Your task to perform on an android device: turn notification dots off Image 0: 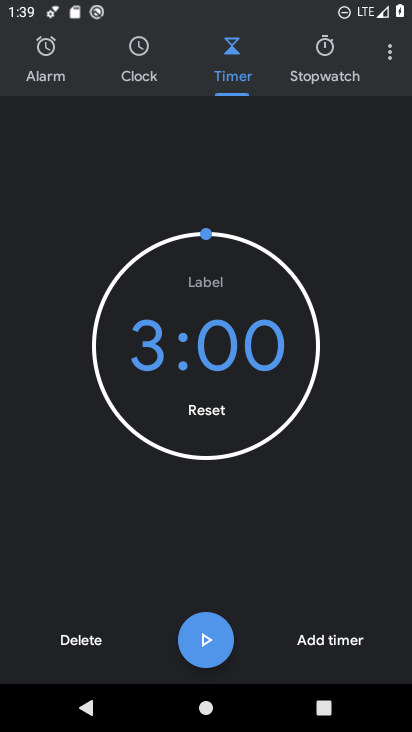
Step 0: press home button
Your task to perform on an android device: turn notification dots off Image 1: 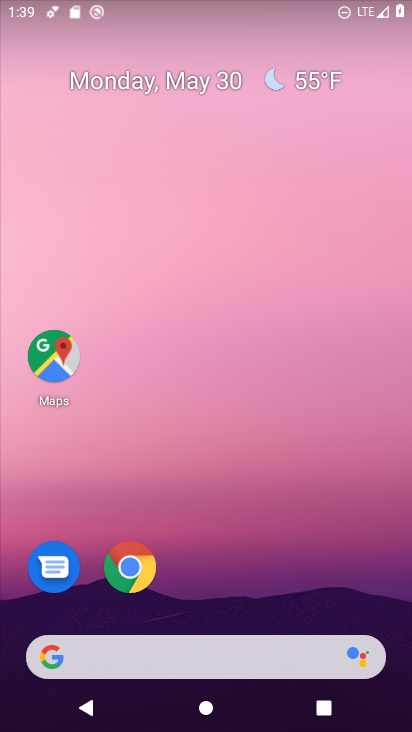
Step 1: drag from (221, 616) to (70, 25)
Your task to perform on an android device: turn notification dots off Image 2: 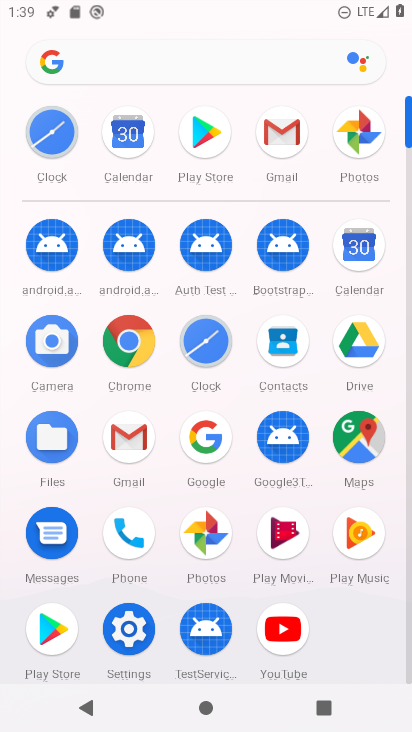
Step 2: click (125, 622)
Your task to perform on an android device: turn notification dots off Image 3: 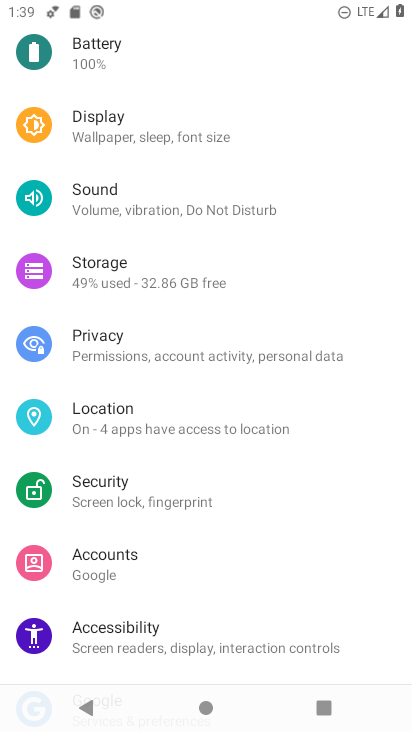
Step 3: drag from (145, 155) to (152, 630)
Your task to perform on an android device: turn notification dots off Image 4: 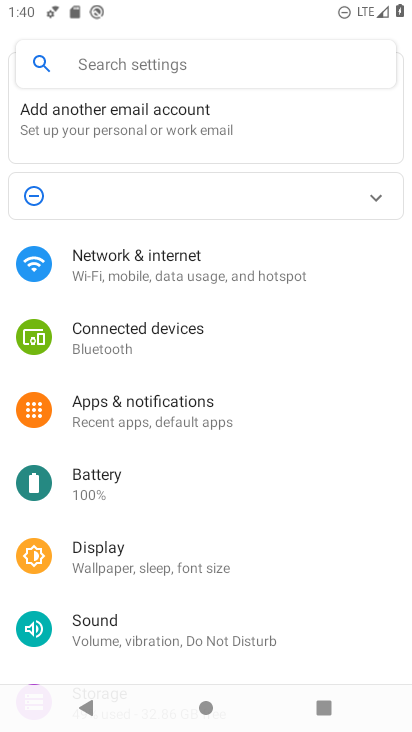
Step 4: click (227, 401)
Your task to perform on an android device: turn notification dots off Image 5: 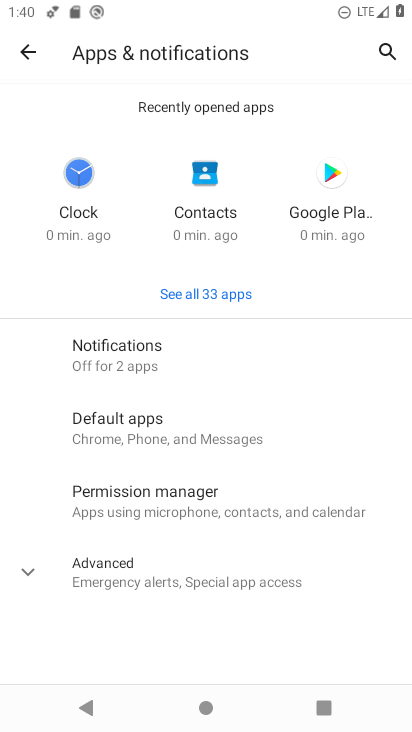
Step 5: click (184, 348)
Your task to perform on an android device: turn notification dots off Image 6: 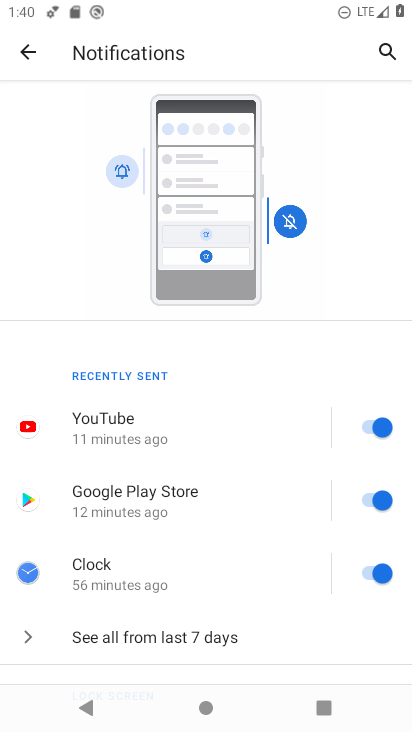
Step 6: drag from (205, 617) to (236, 252)
Your task to perform on an android device: turn notification dots off Image 7: 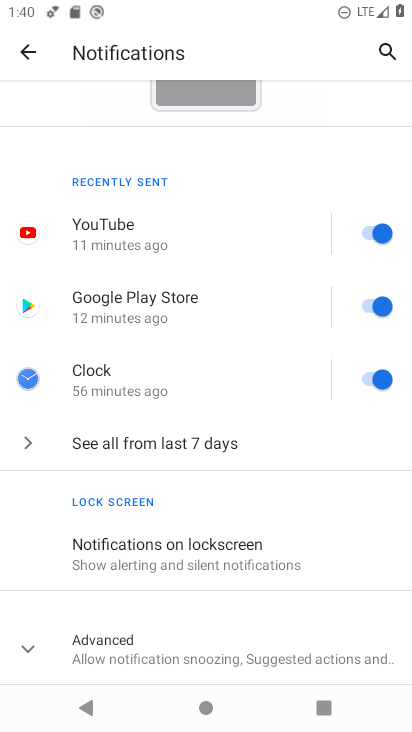
Step 7: click (151, 638)
Your task to perform on an android device: turn notification dots off Image 8: 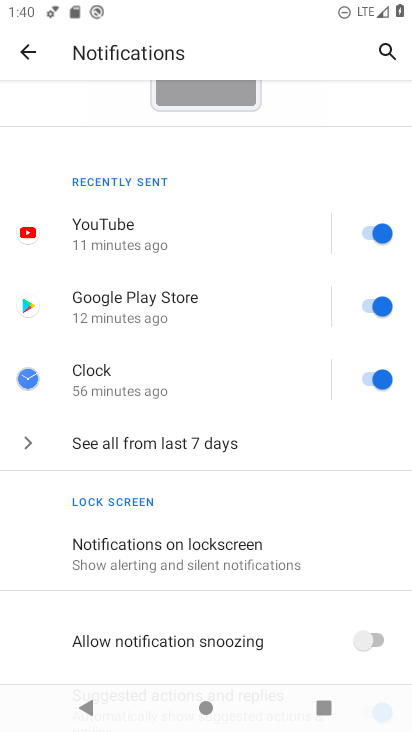
Step 8: drag from (196, 619) to (222, 118)
Your task to perform on an android device: turn notification dots off Image 9: 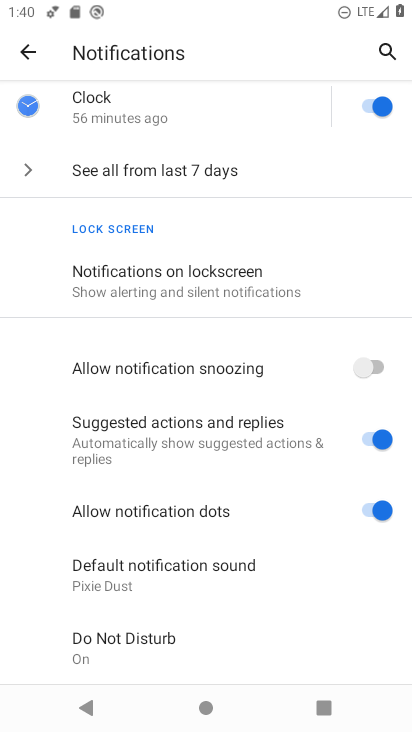
Step 9: click (358, 505)
Your task to perform on an android device: turn notification dots off Image 10: 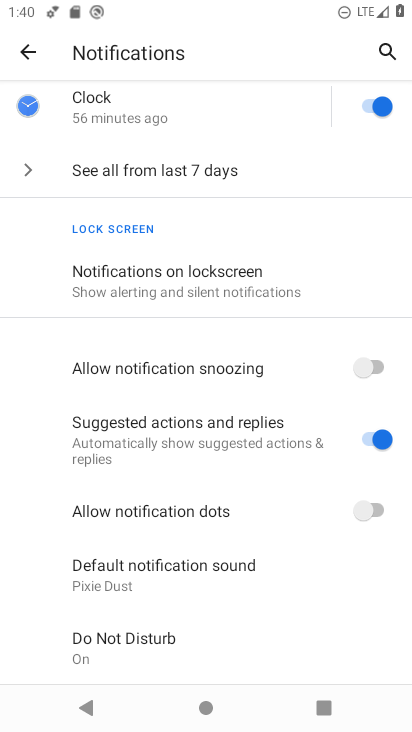
Step 10: task complete